Your task to perform on an android device: Go to settings Image 0: 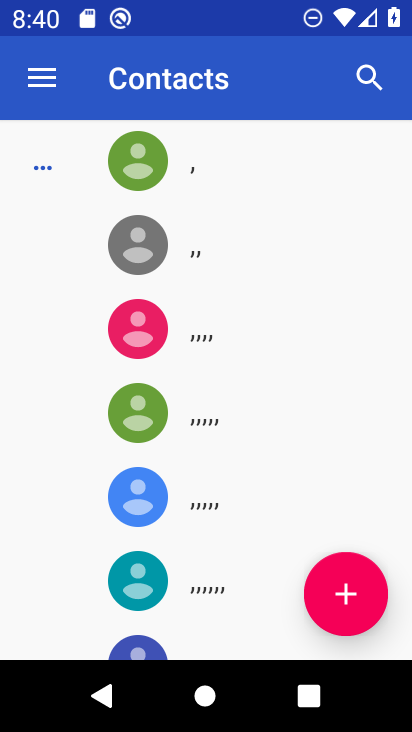
Step 0: press home button
Your task to perform on an android device: Go to settings Image 1: 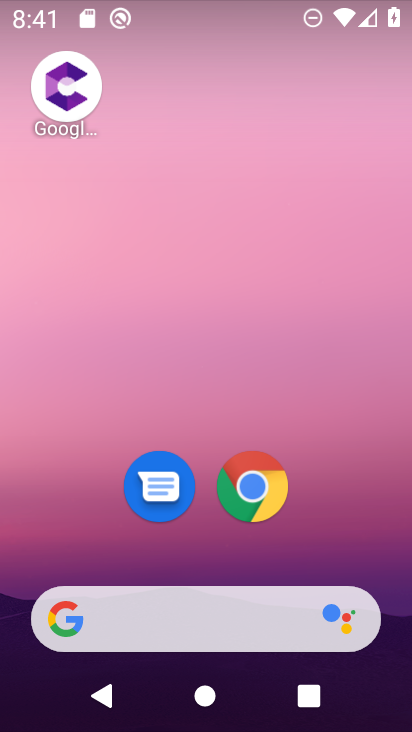
Step 1: drag from (402, 619) to (345, 97)
Your task to perform on an android device: Go to settings Image 2: 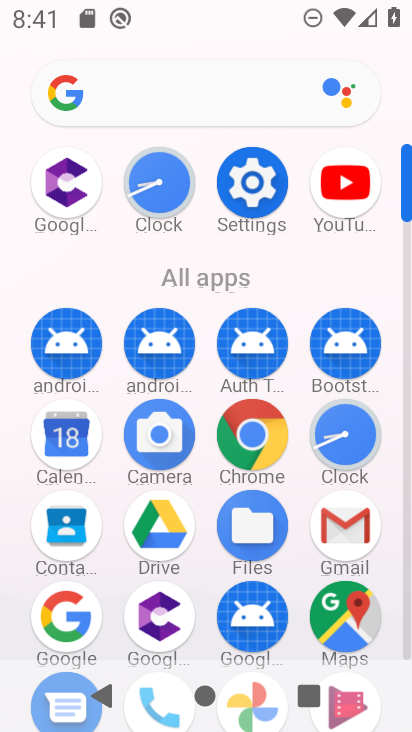
Step 2: click (409, 645)
Your task to perform on an android device: Go to settings Image 3: 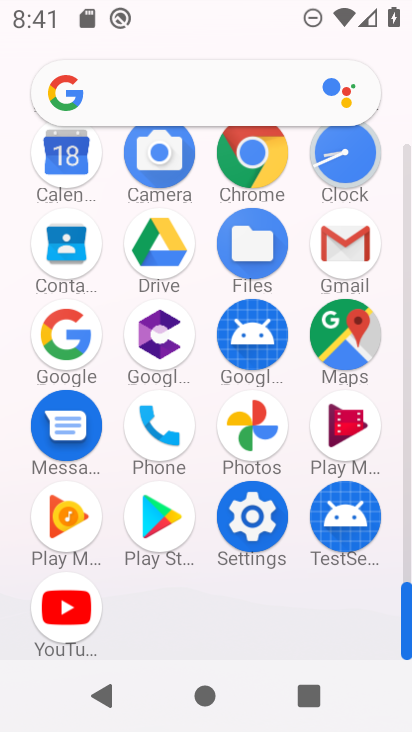
Step 3: click (251, 513)
Your task to perform on an android device: Go to settings Image 4: 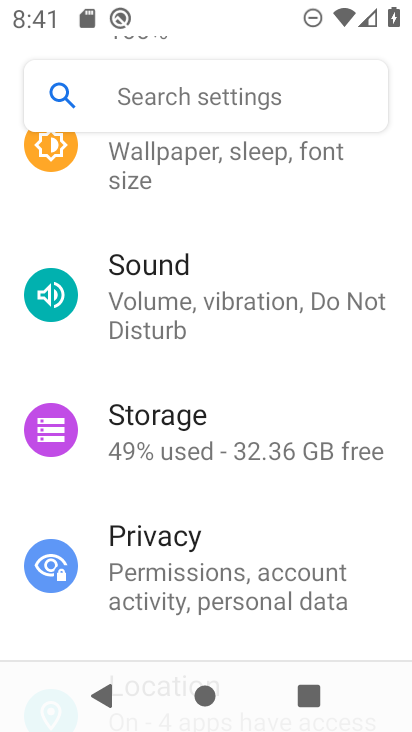
Step 4: task complete